Your task to perform on an android device: What is the recent news? Image 0: 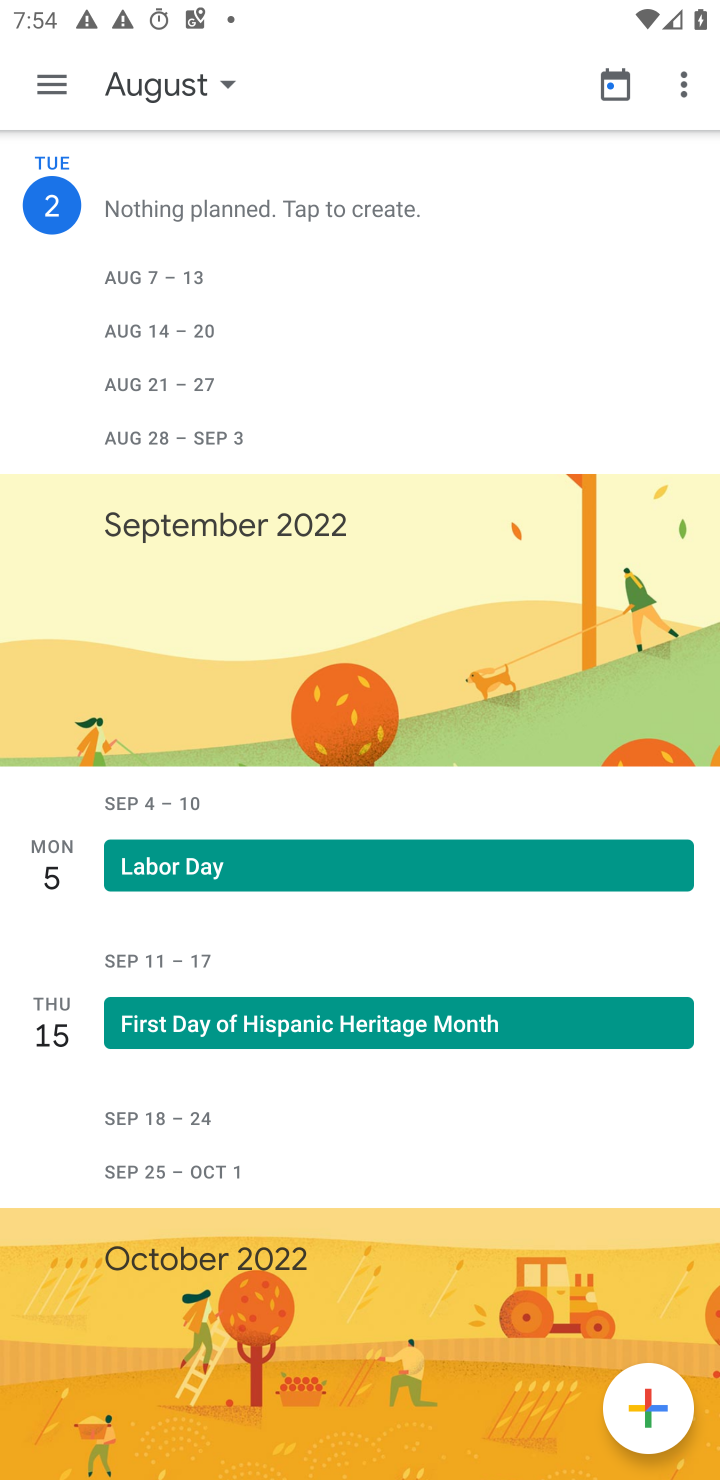
Step 0: click (661, 737)
Your task to perform on an android device: What is the recent news? Image 1: 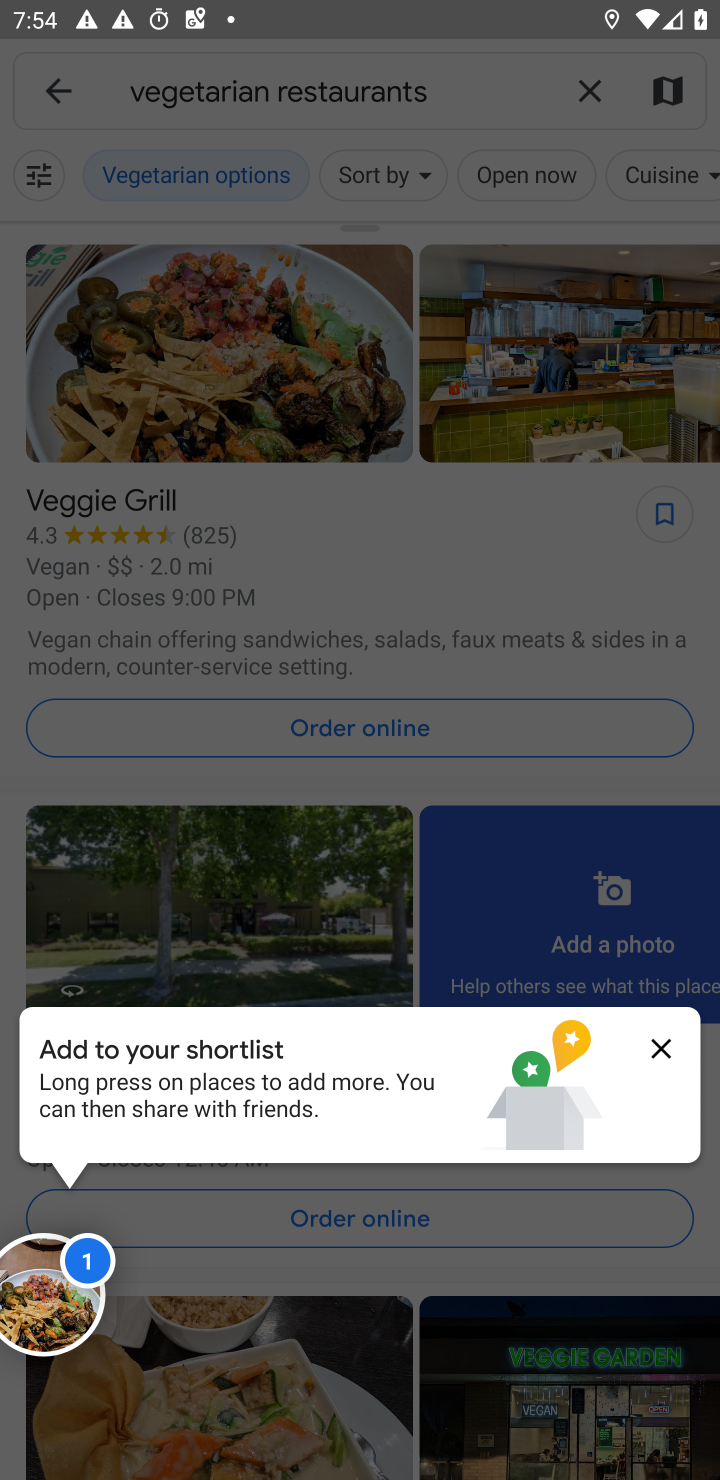
Step 1: drag from (392, 1197) to (443, 631)
Your task to perform on an android device: What is the recent news? Image 2: 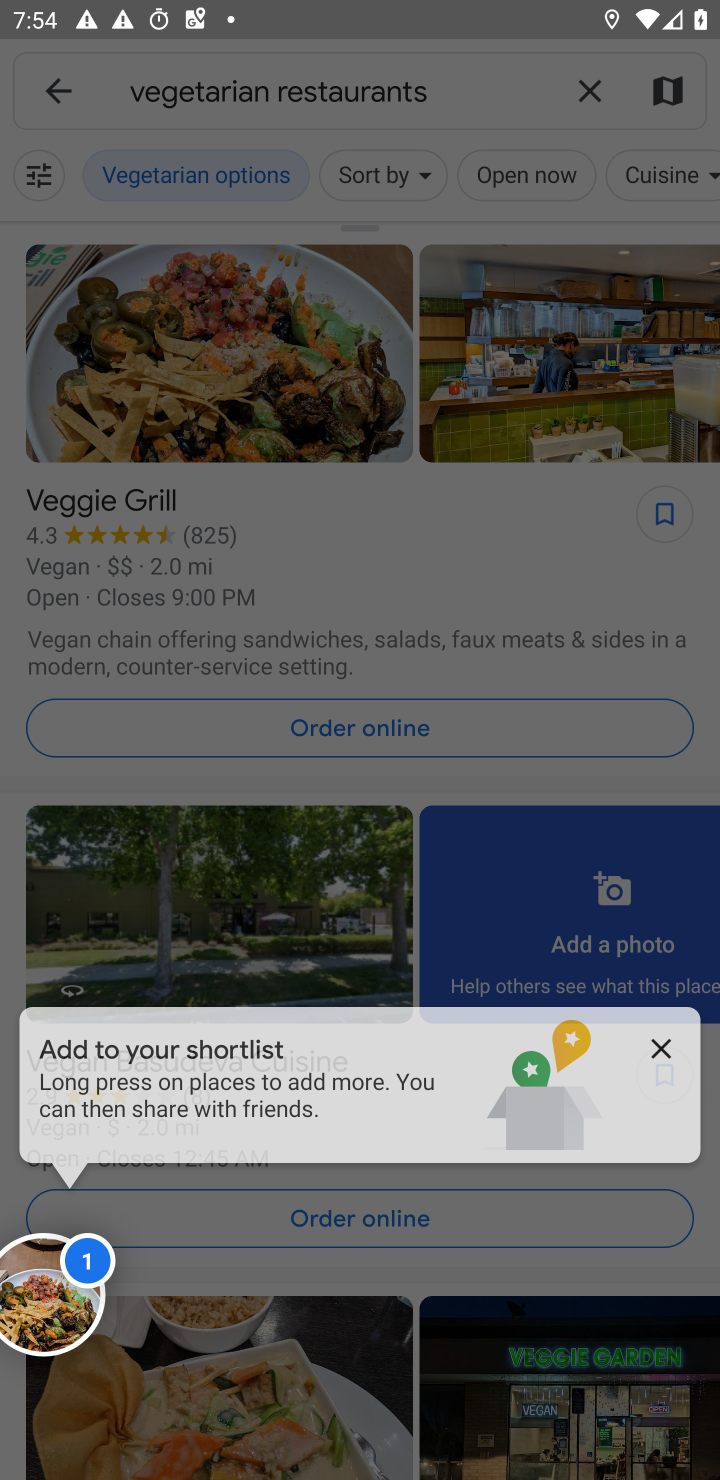
Step 2: click (545, 1336)
Your task to perform on an android device: What is the recent news? Image 3: 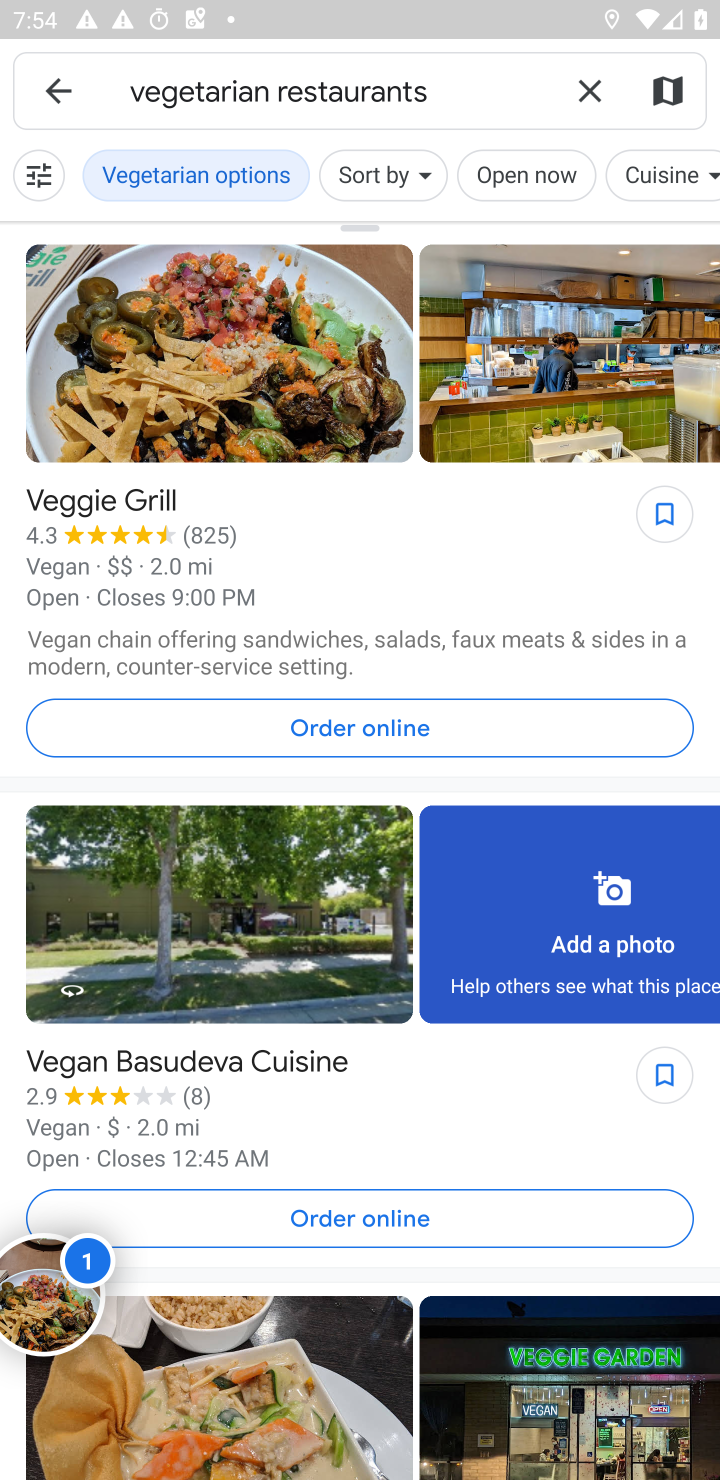
Step 3: press home button
Your task to perform on an android device: What is the recent news? Image 4: 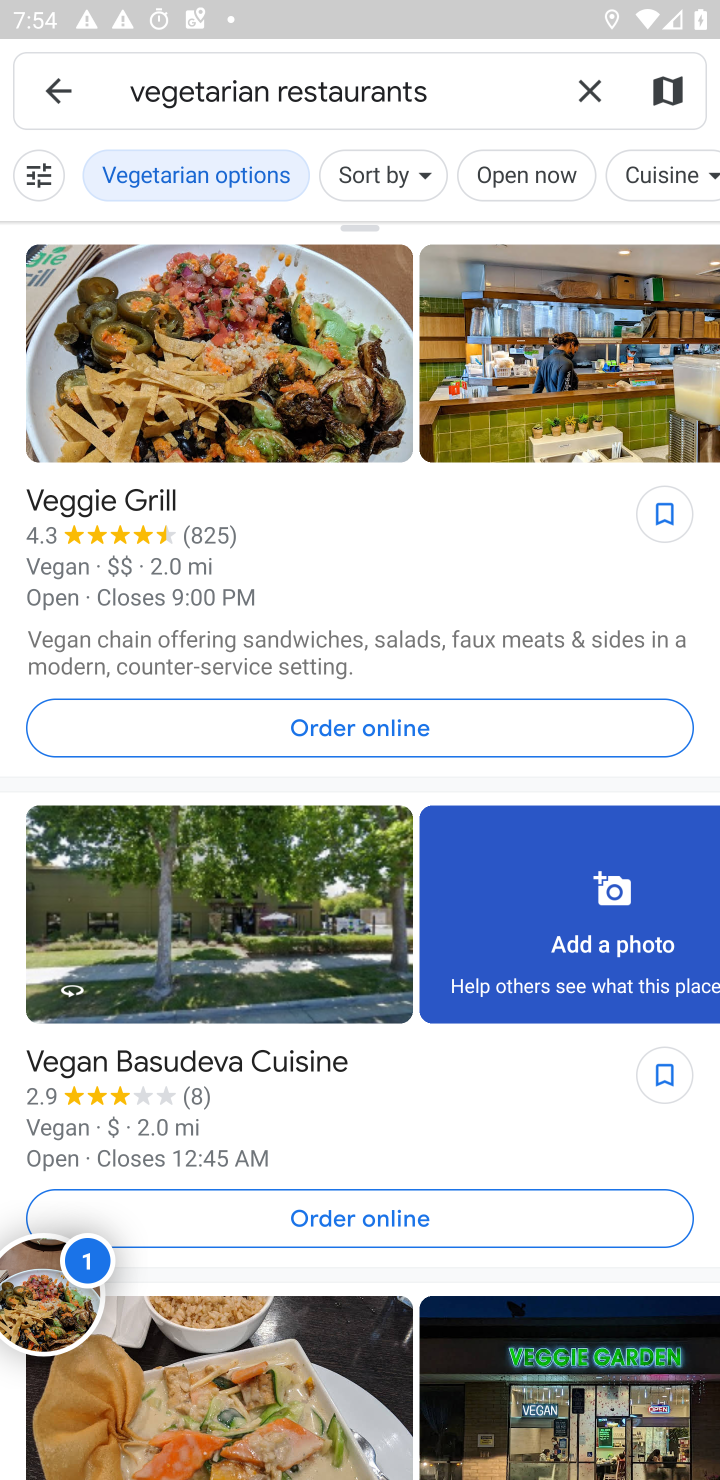
Step 4: click (573, 201)
Your task to perform on an android device: What is the recent news? Image 5: 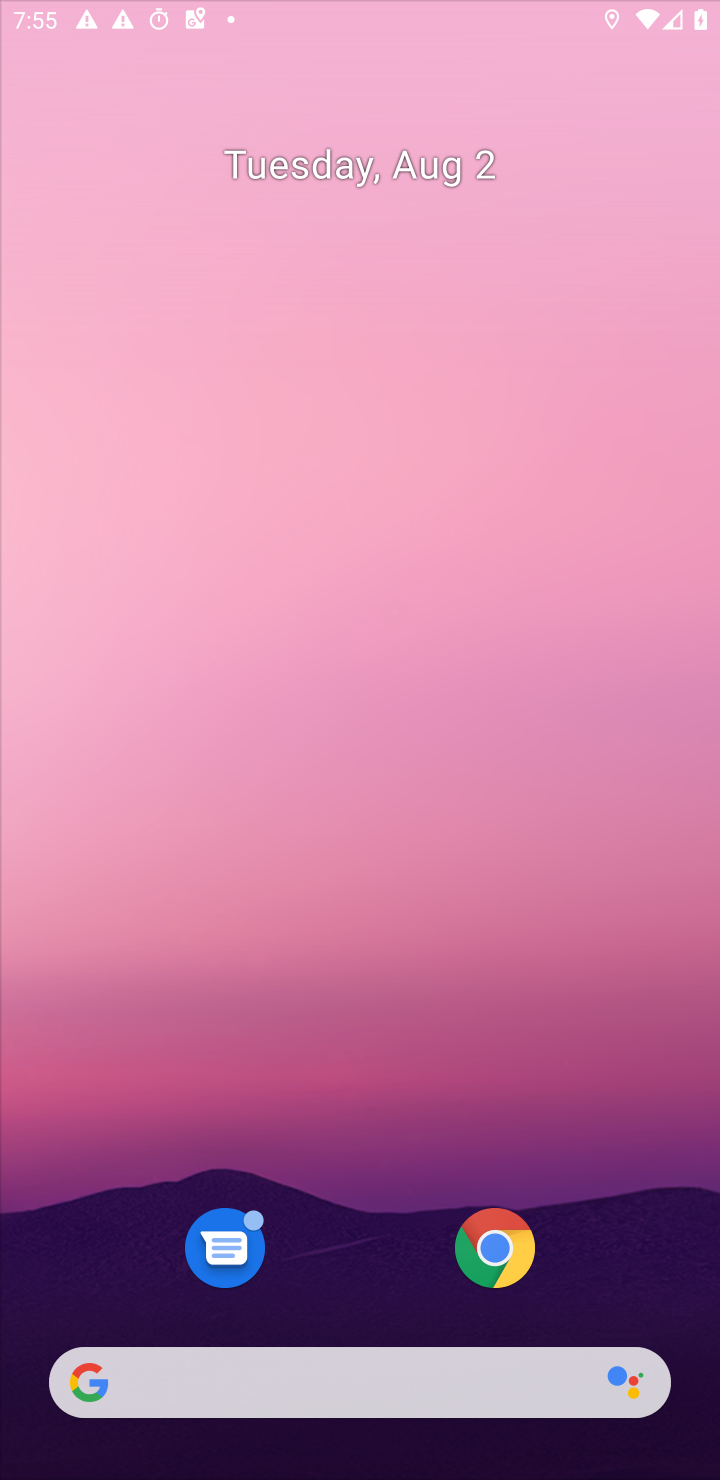
Step 5: drag from (380, 1209) to (365, 787)
Your task to perform on an android device: What is the recent news? Image 6: 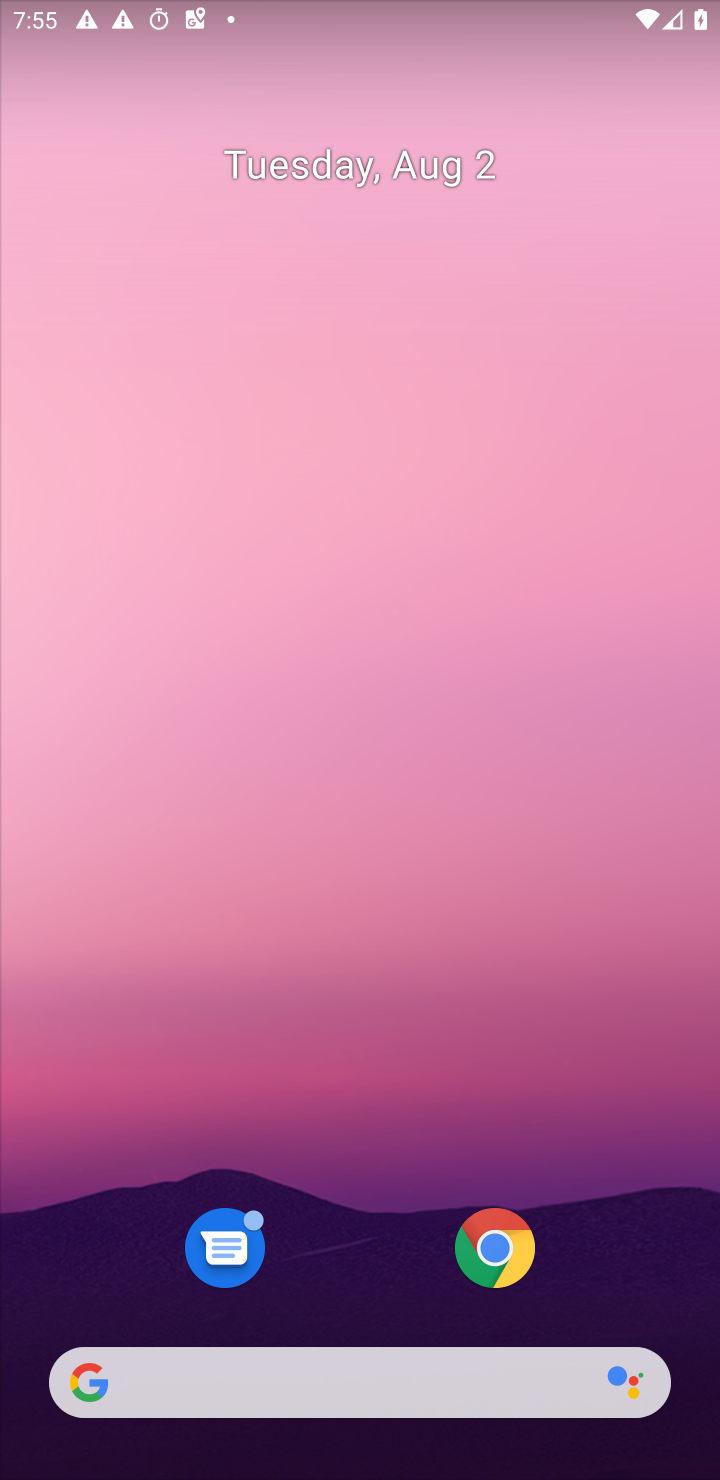
Step 6: drag from (375, 741) to (560, 199)
Your task to perform on an android device: What is the recent news? Image 7: 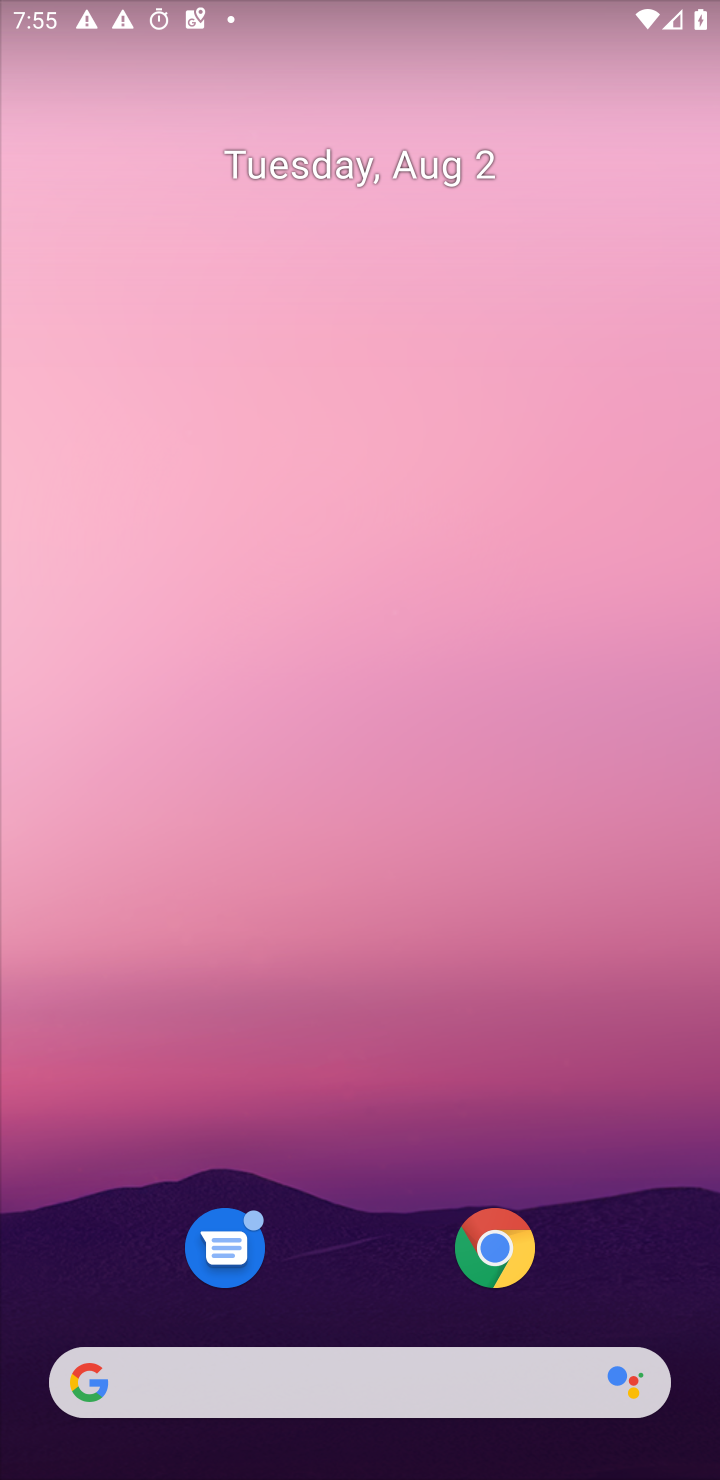
Step 7: drag from (363, 1242) to (487, 430)
Your task to perform on an android device: What is the recent news? Image 8: 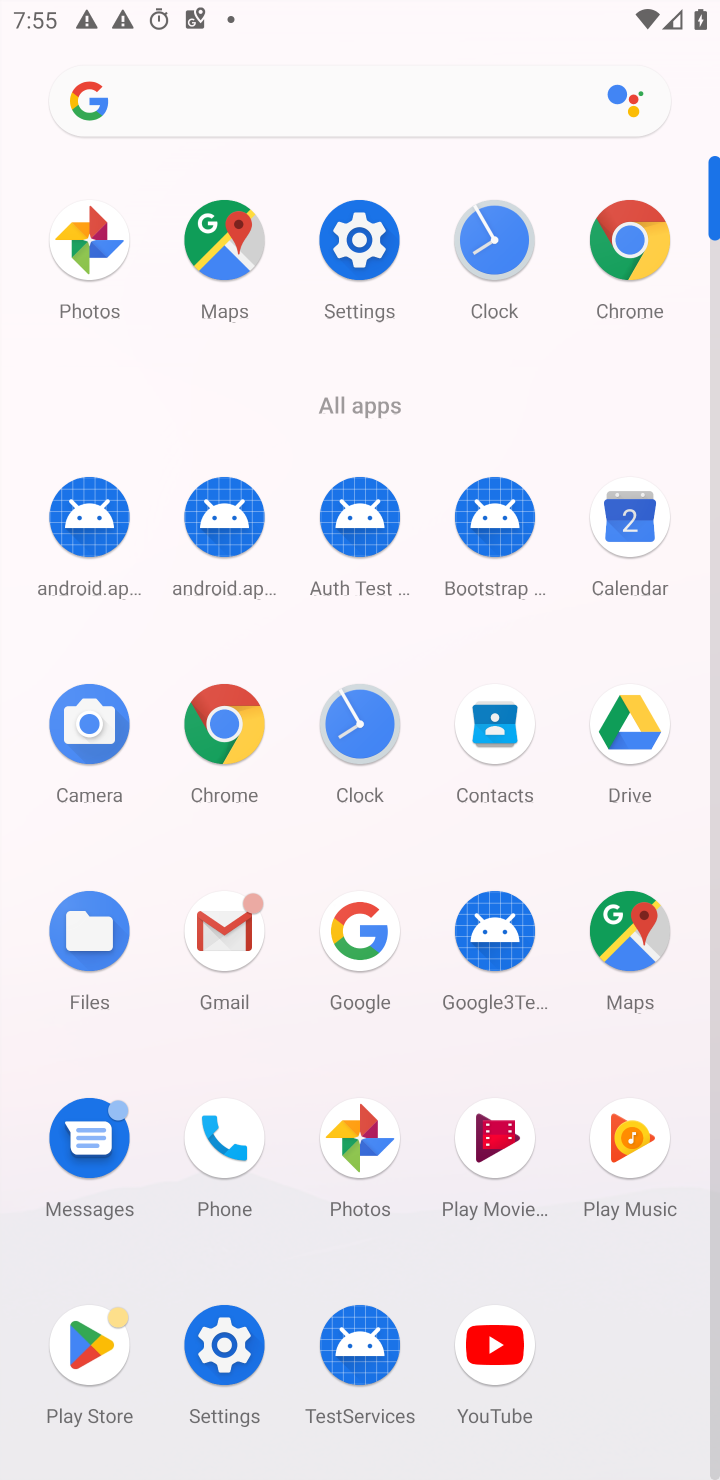
Step 8: click (300, 111)
Your task to perform on an android device: What is the recent news? Image 9: 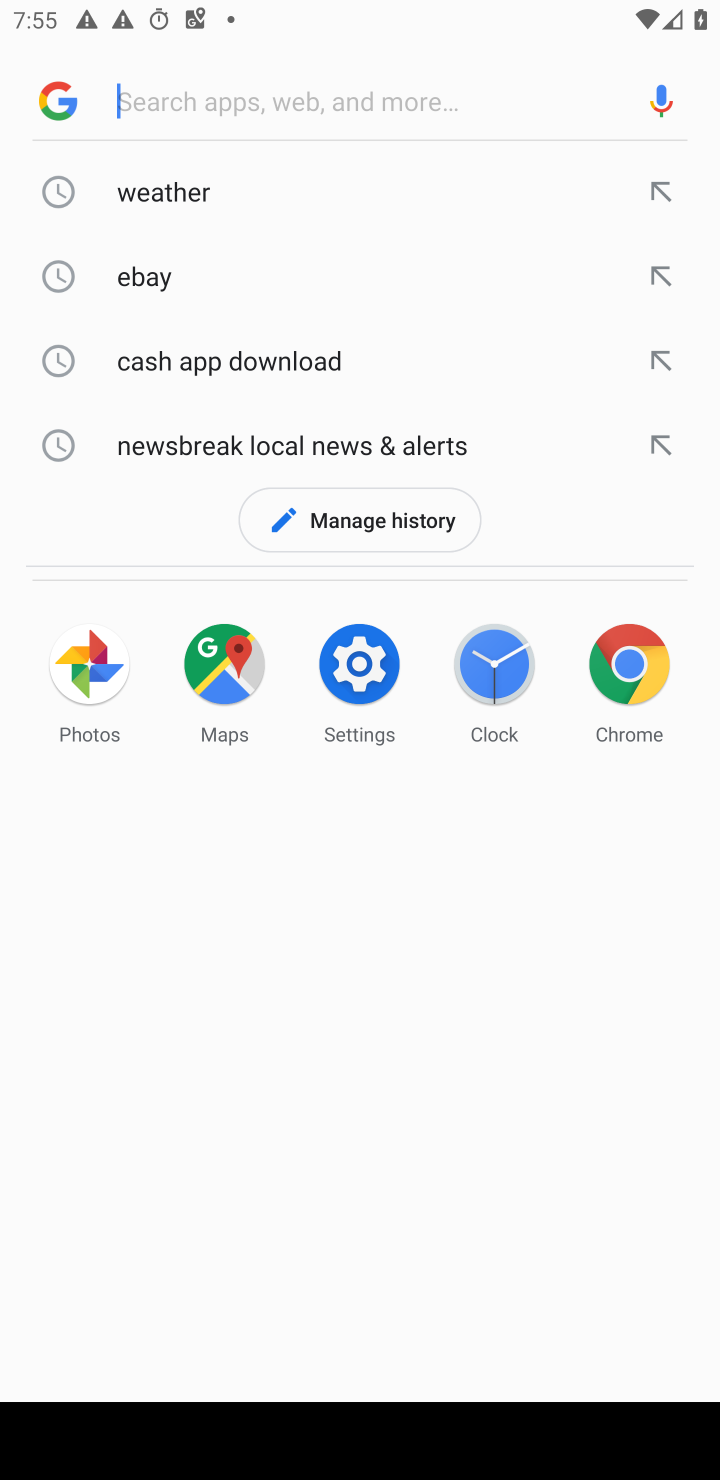
Step 9: type "recent news?"
Your task to perform on an android device: What is the recent news? Image 10: 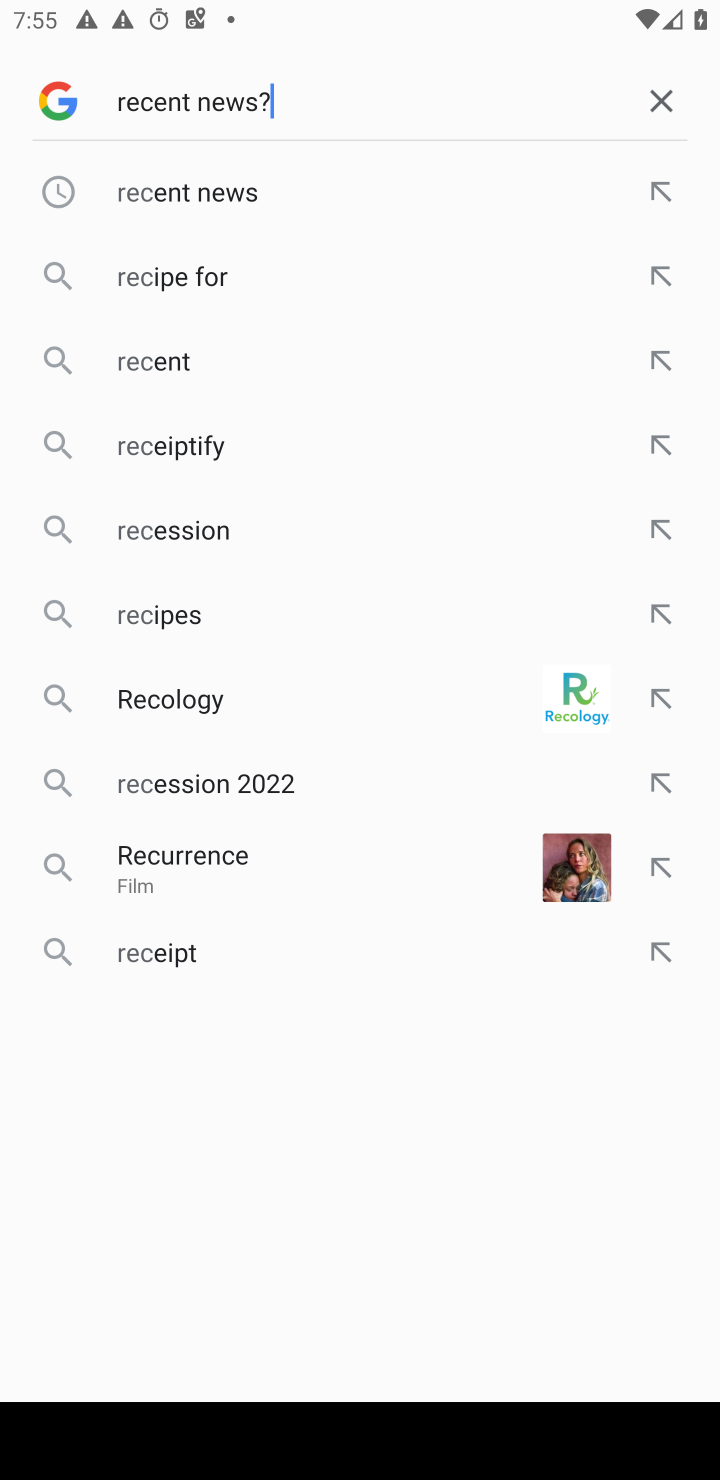
Step 10: type ""
Your task to perform on an android device: What is the recent news? Image 11: 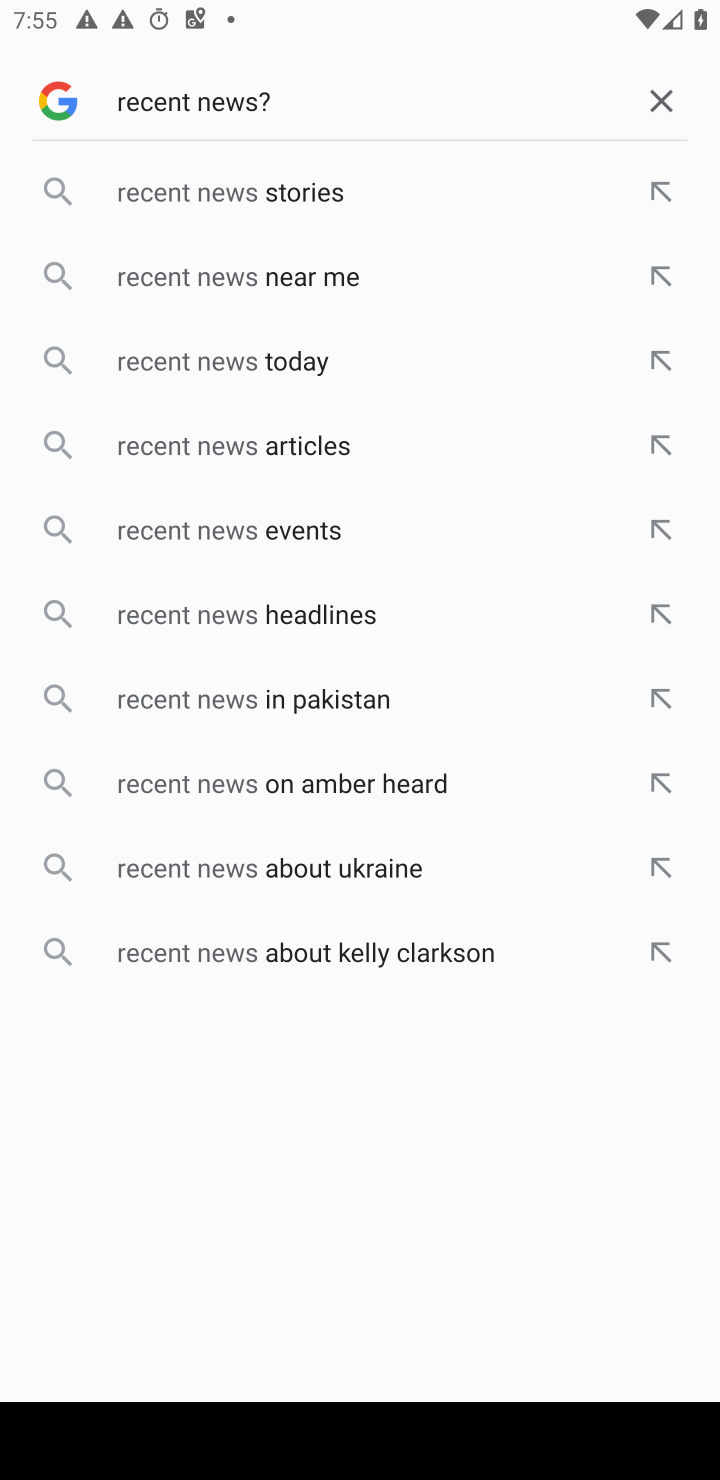
Step 11: click (119, 358)
Your task to perform on an android device: What is the recent news? Image 12: 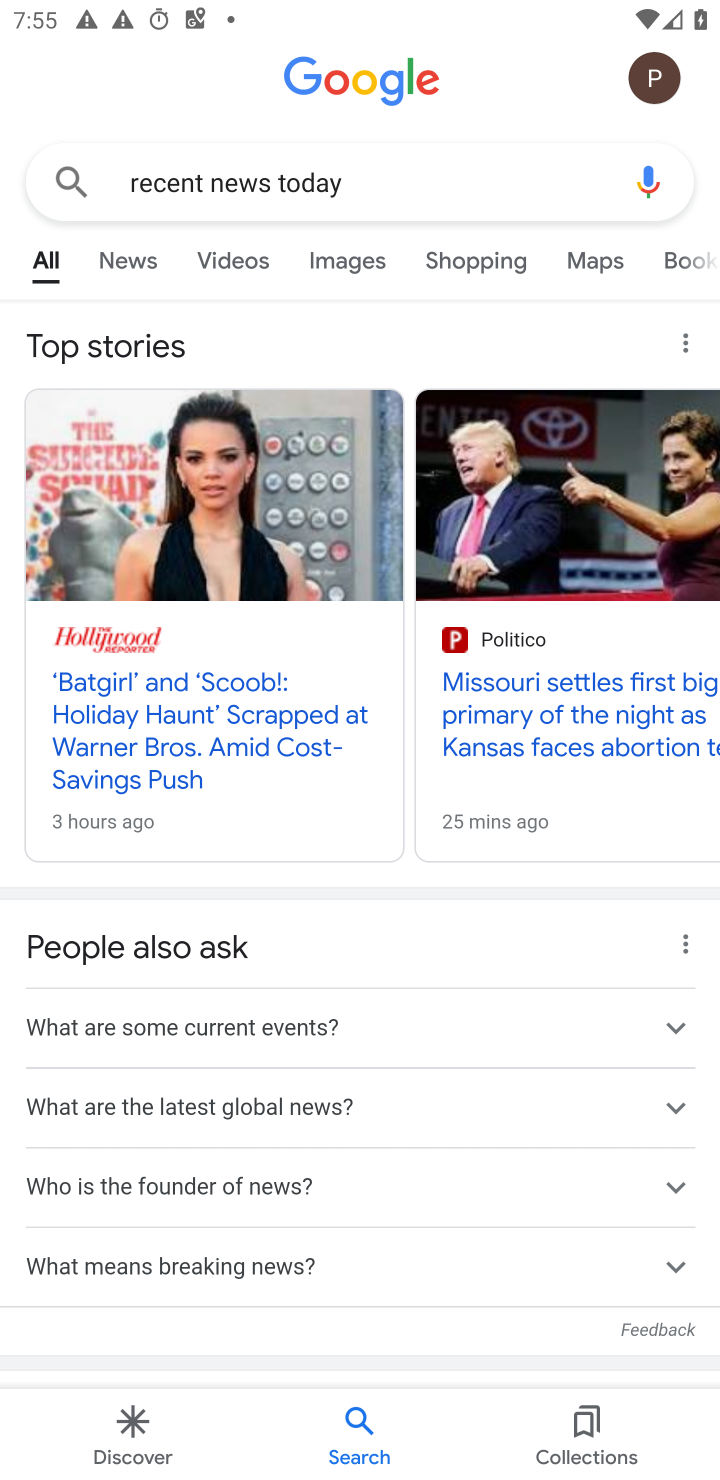
Step 12: drag from (344, 357) to (490, 1037)
Your task to perform on an android device: What is the recent news? Image 13: 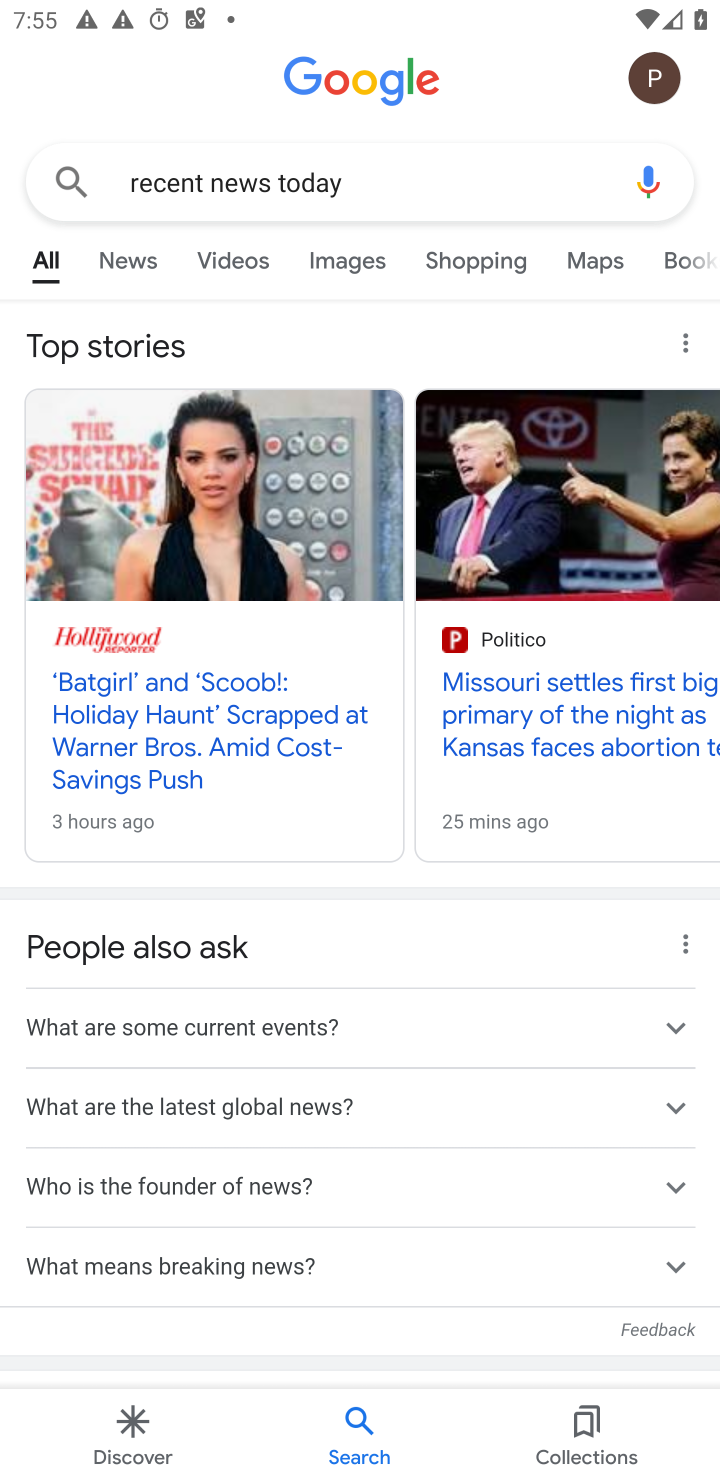
Step 13: drag from (252, 520) to (300, 975)
Your task to perform on an android device: What is the recent news? Image 14: 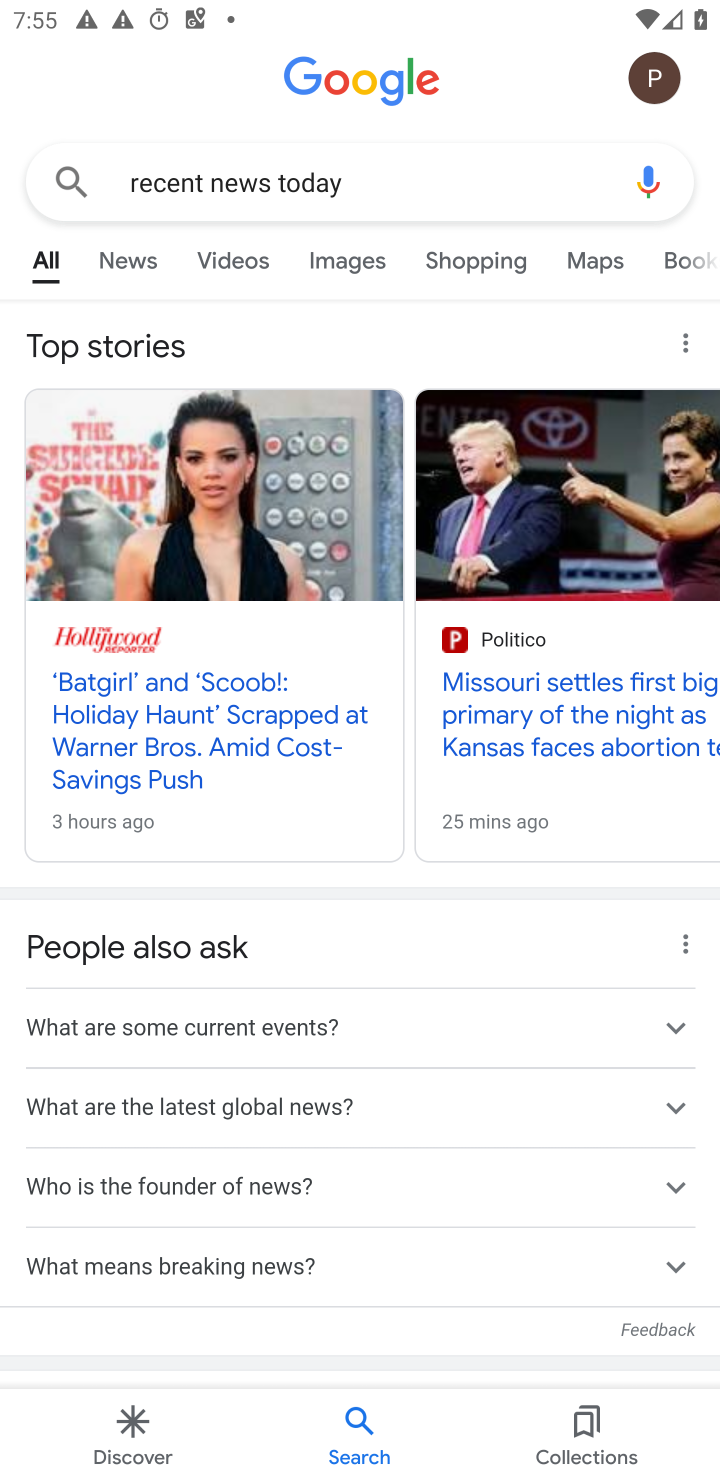
Step 14: drag from (380, 989) to (343, 475)
Your task to perform on an android device: What is the recent news? Image 15: 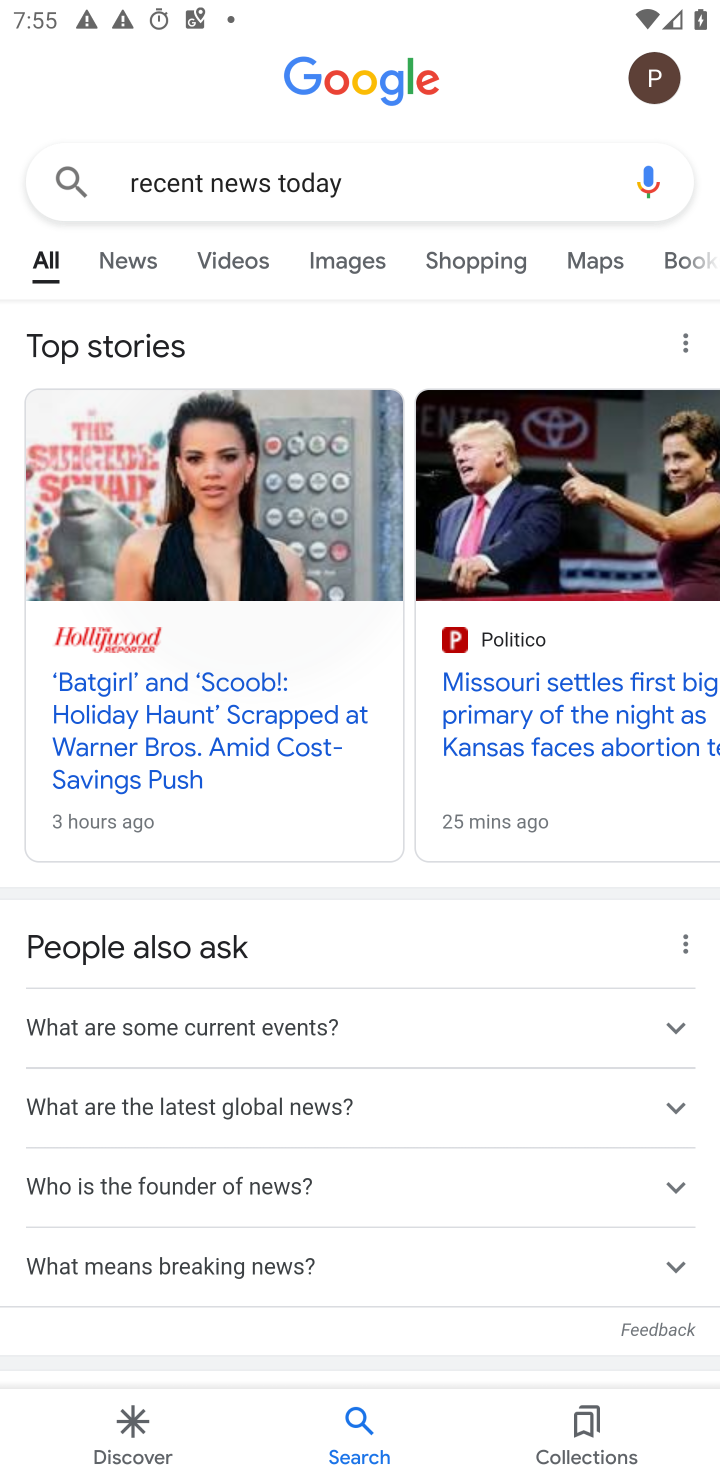
Step 15: drag from (424, 1016) to (439, 492)
Your task to perform on an android device: What is the recent news? Image 16: 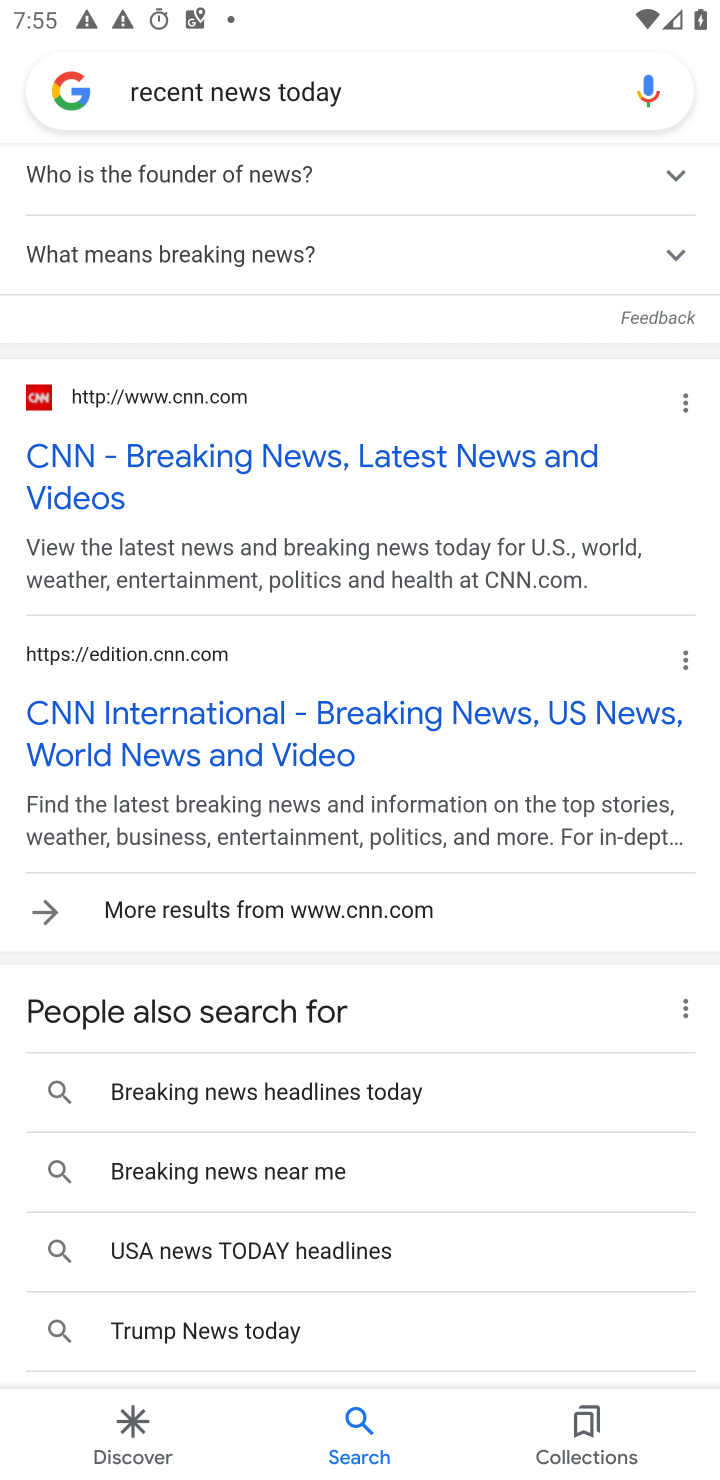
Step 16: drag from (290, 1054) to (298, 413)
Your task to perform on an android device: What is the recent news? Image 17: 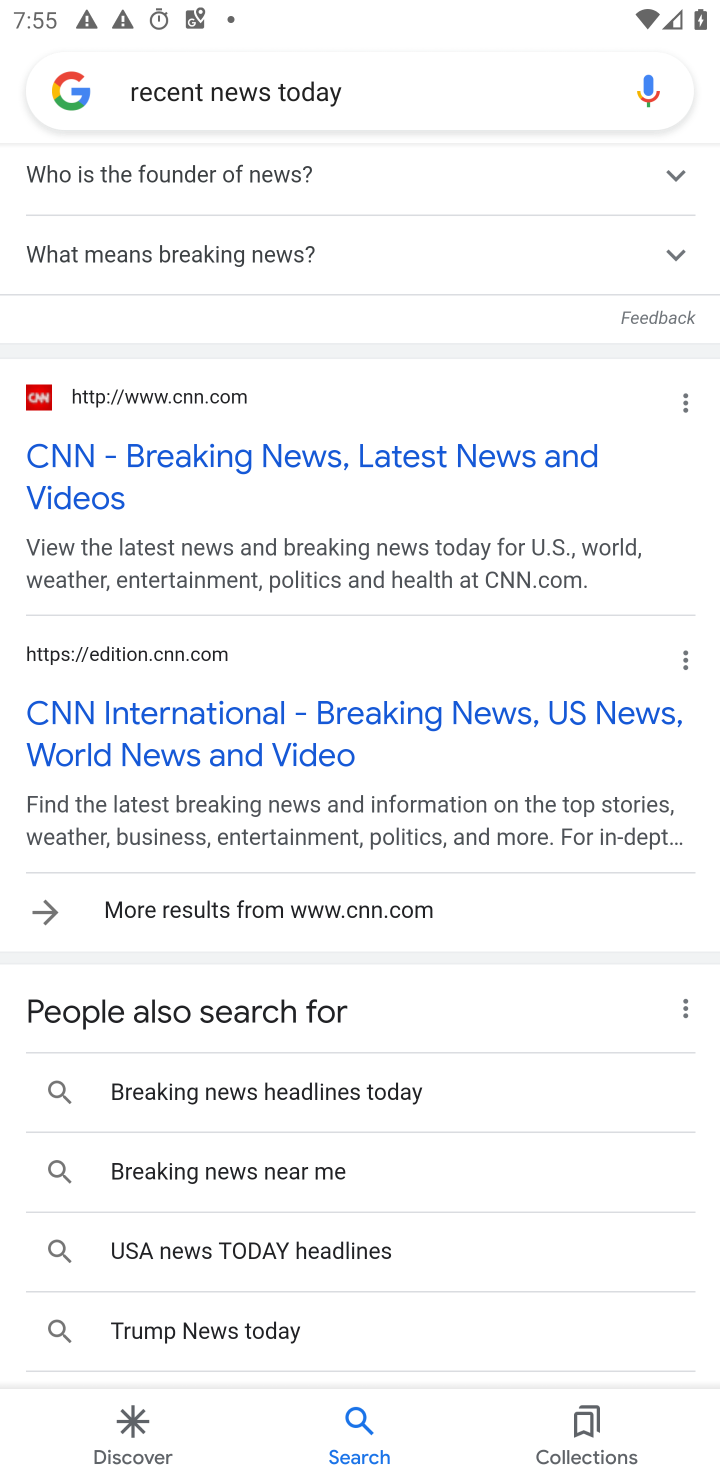
Step 17: drag from (307, 345) to (461, 1267)
Your task to perform on an android device: What is the recent news? Image 18: 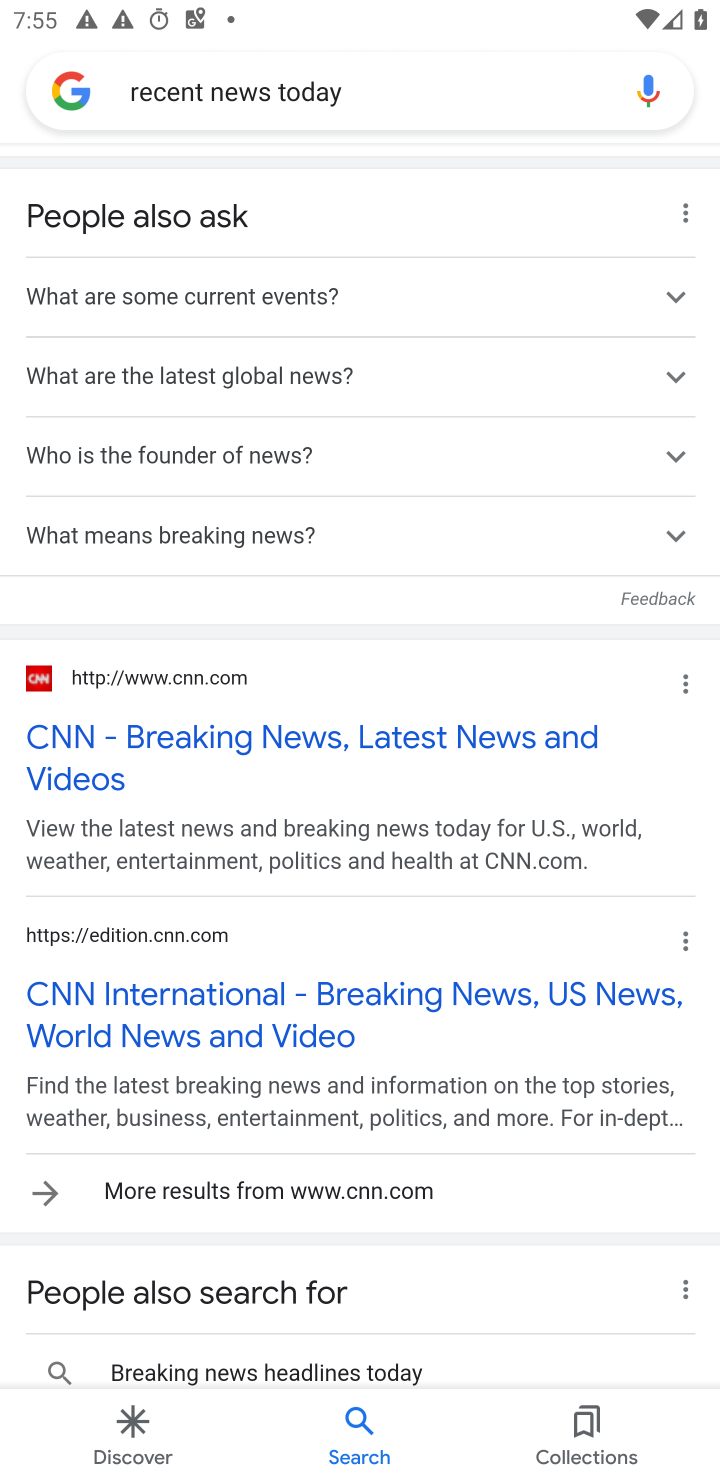
Step 18: drag from (327, 738) to (371, 419)
Your task to perform on an android device: What is the recent news? Image 19: 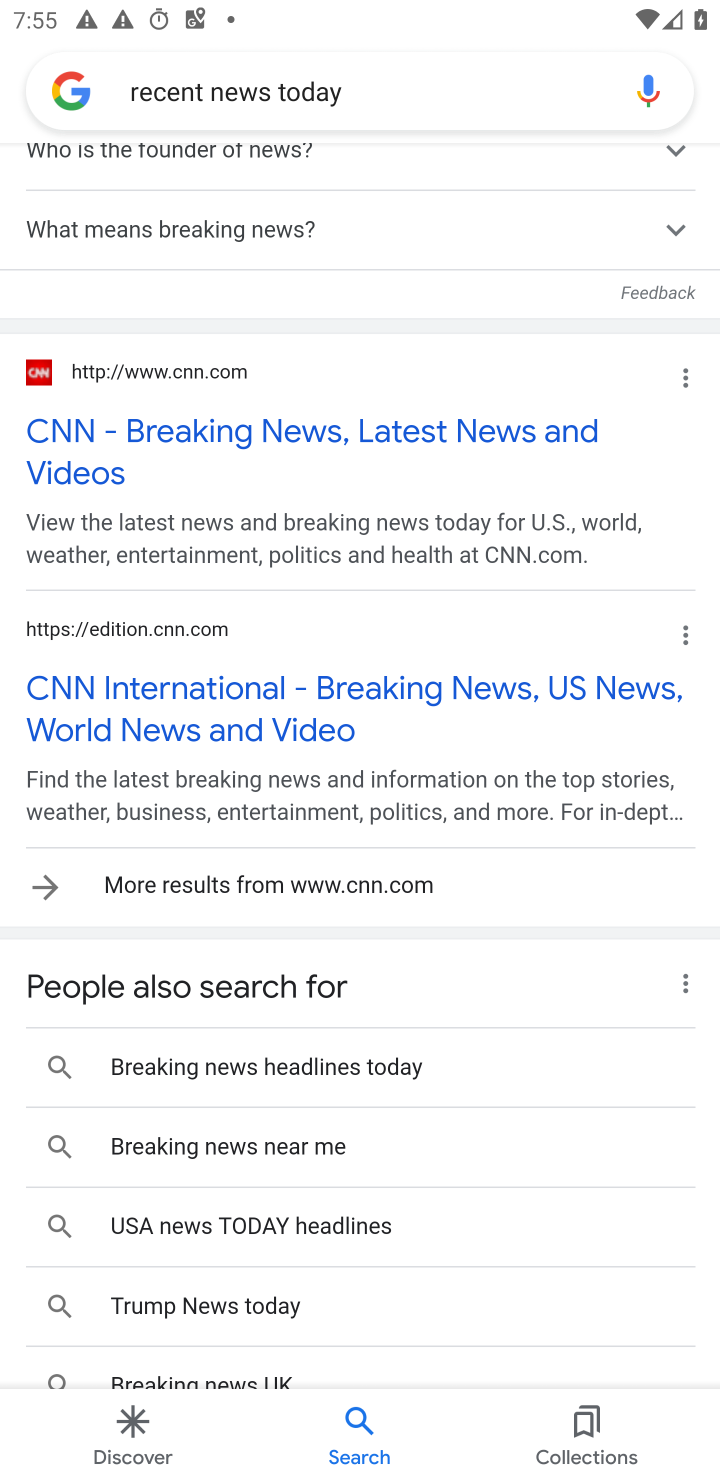
Step 19: drag from (338, 477) to (528, 1149)
Your task to perform on an android device: What is the recent news? Image 20: 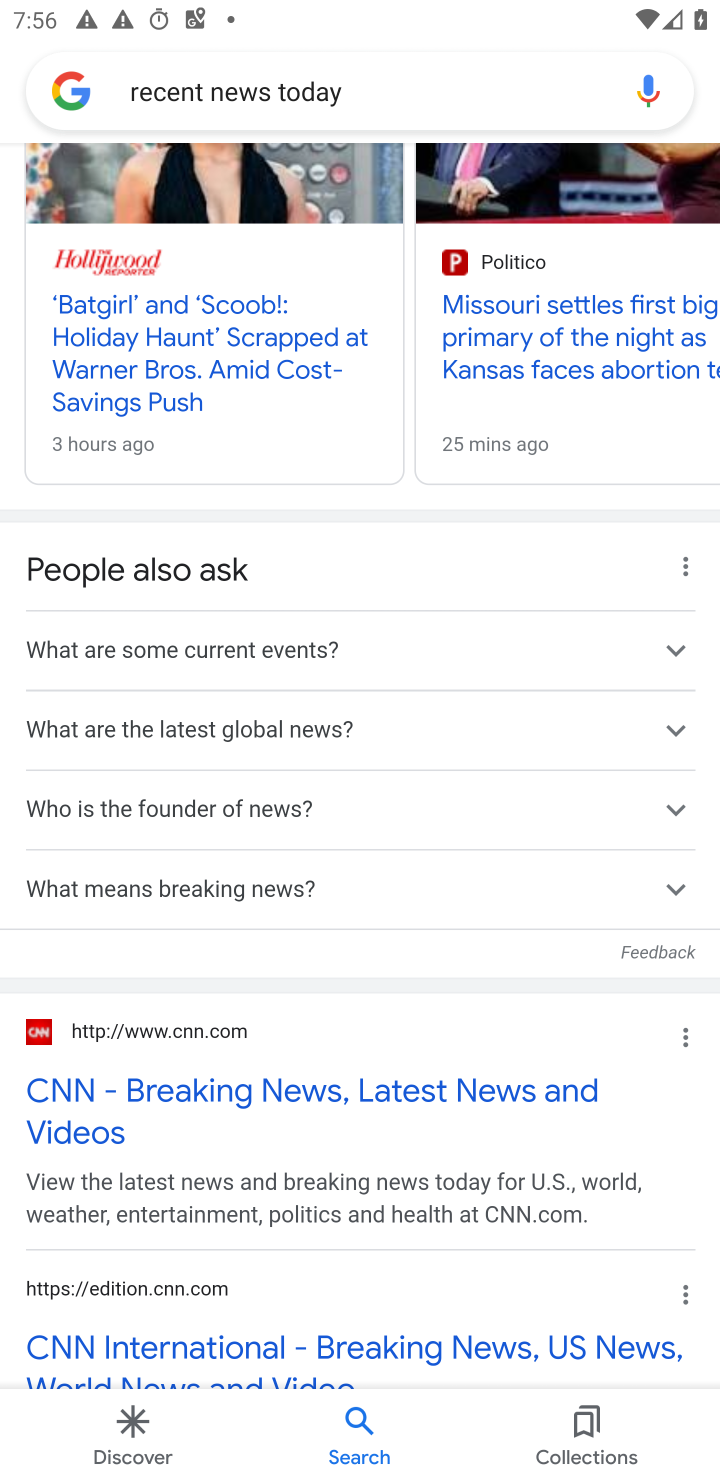
Step 20: drag from (389, 601) to (310, 1368)
Your task to perform on an android device: What is the recent news? Image 21: 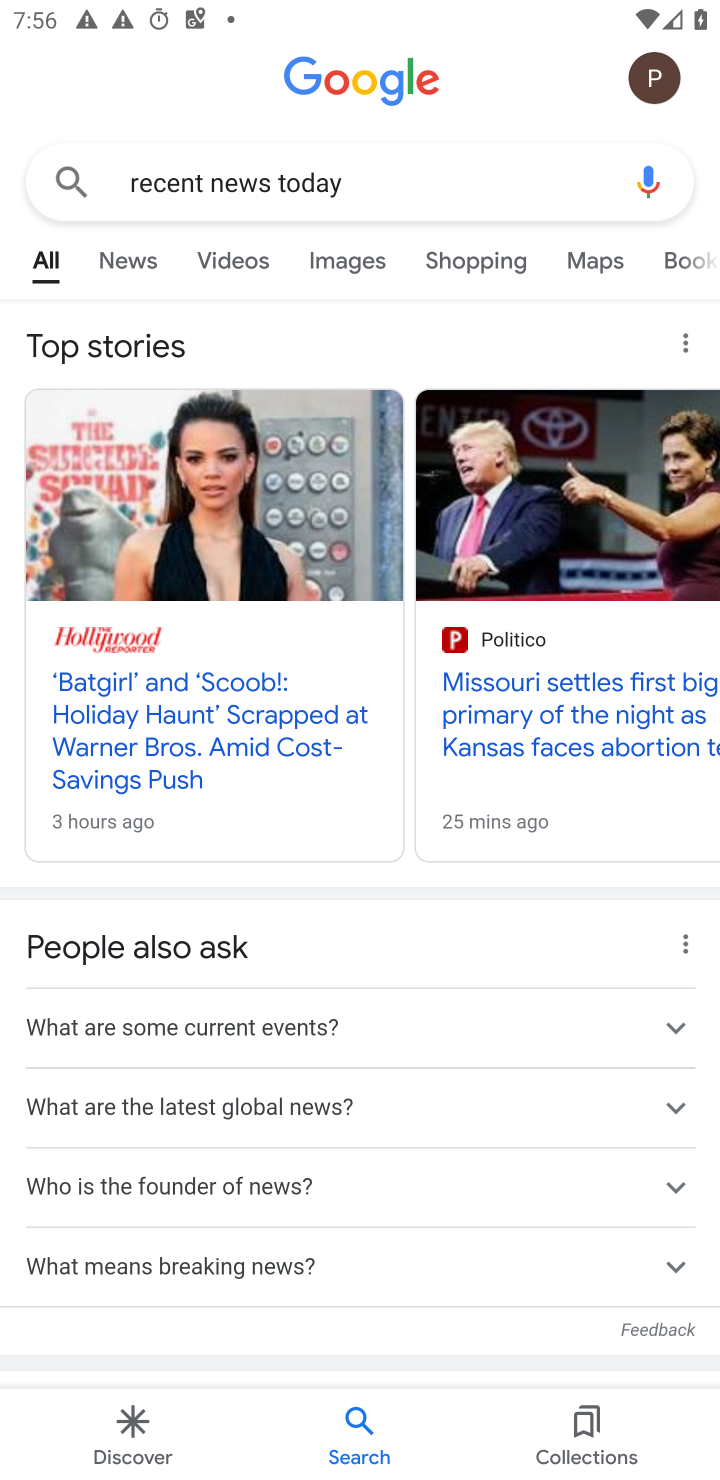
Step 21: drag from (375, 350) to (313, 863)
Your task to perform on an android device: What is the recent news? Image 22: 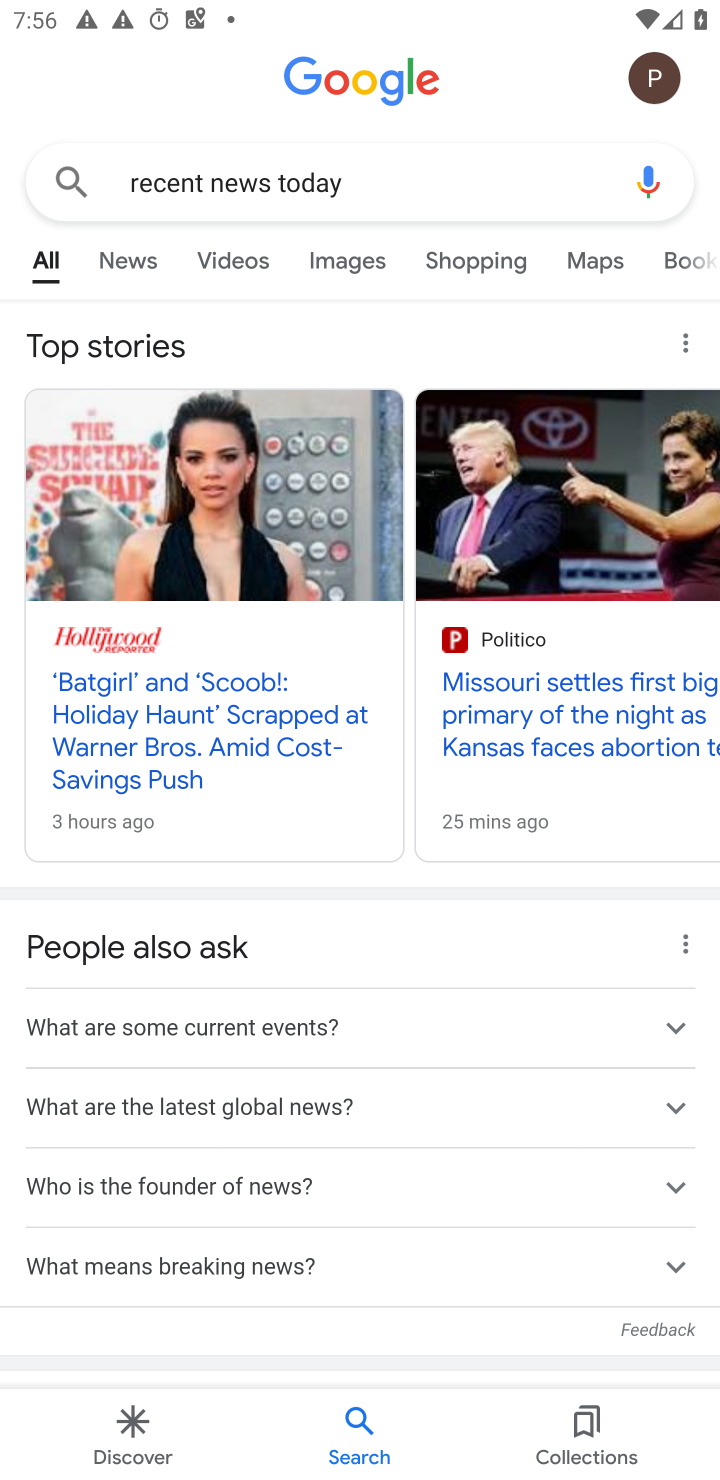
Step 22: drag from (318, 914) to (429, 1468)
Your task to perform on an android device: What is the recent news? Image 23: 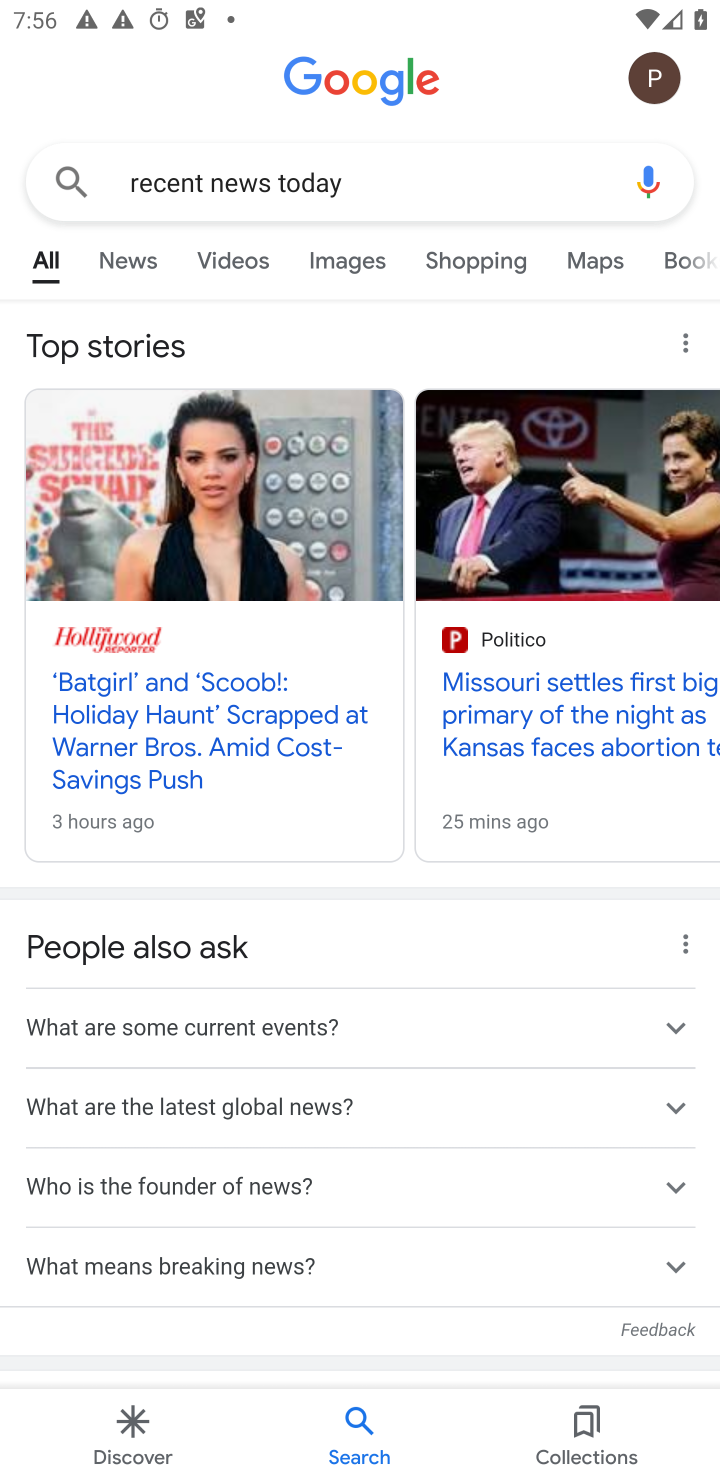
Step 23: drag from (442, 999) to (527, 653)
Your task to perform on an android device: What is the recent news? Image 24: 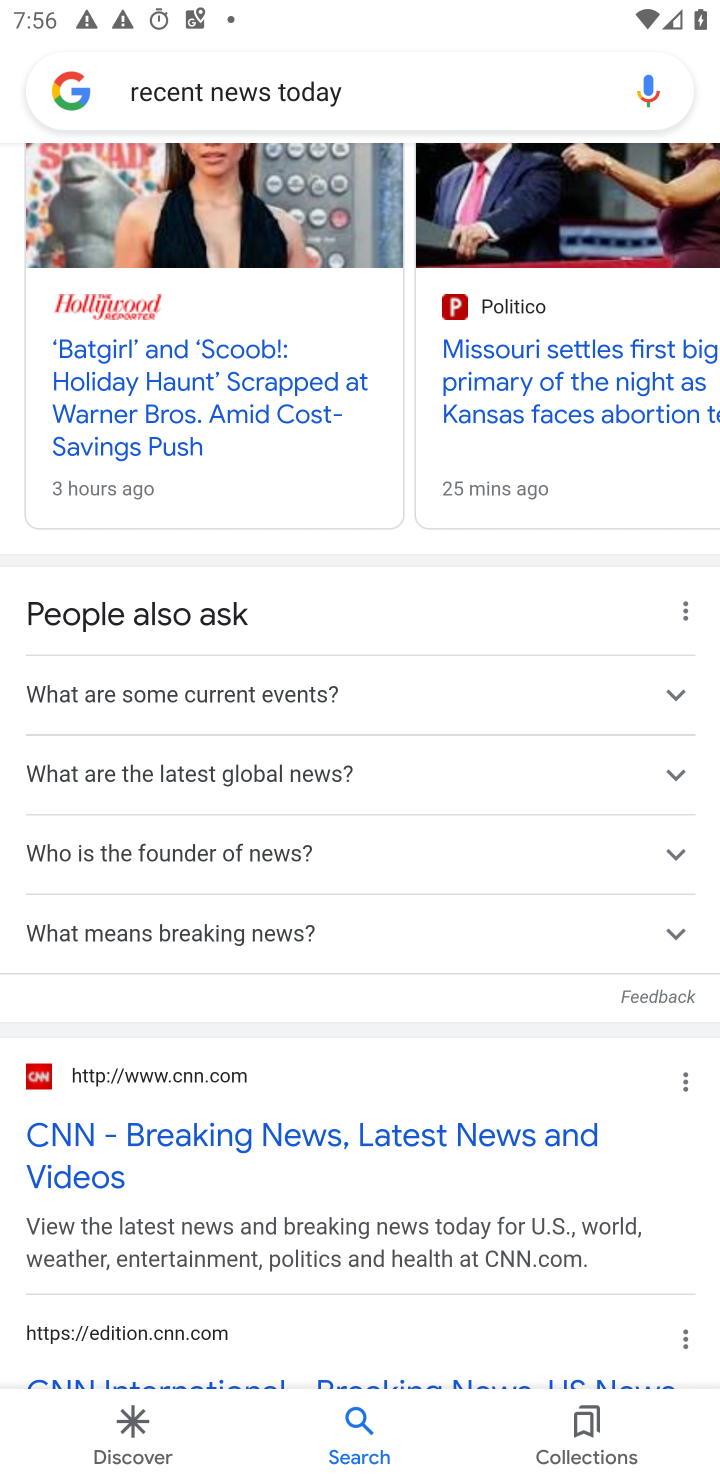
Step 24: drag from (394, 690) to (443, 1464)
Your task to perform on an android device: What is the recent news? Image 25: 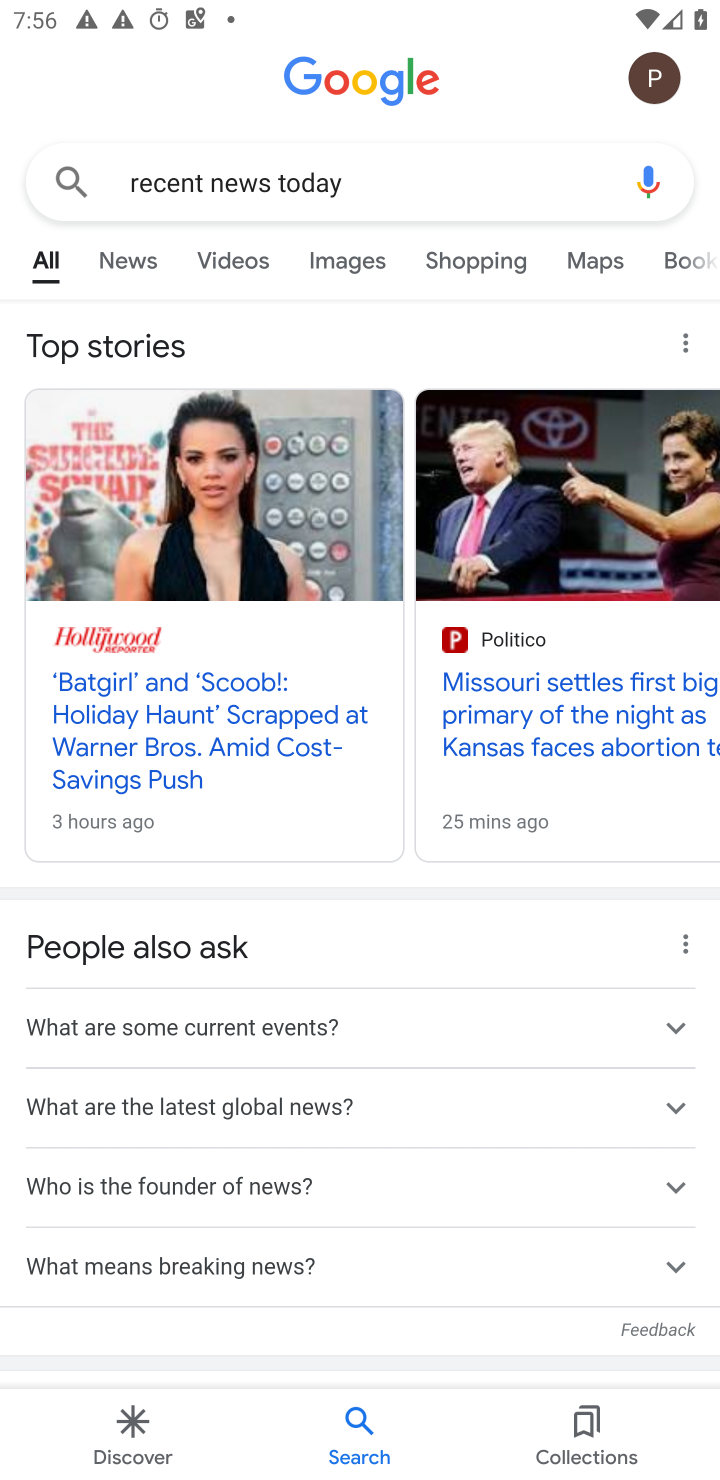
Step 25: drag from (381, 1004) to (502, 1478)
Your task to perform on an android device: What is the recent news? Image 26: 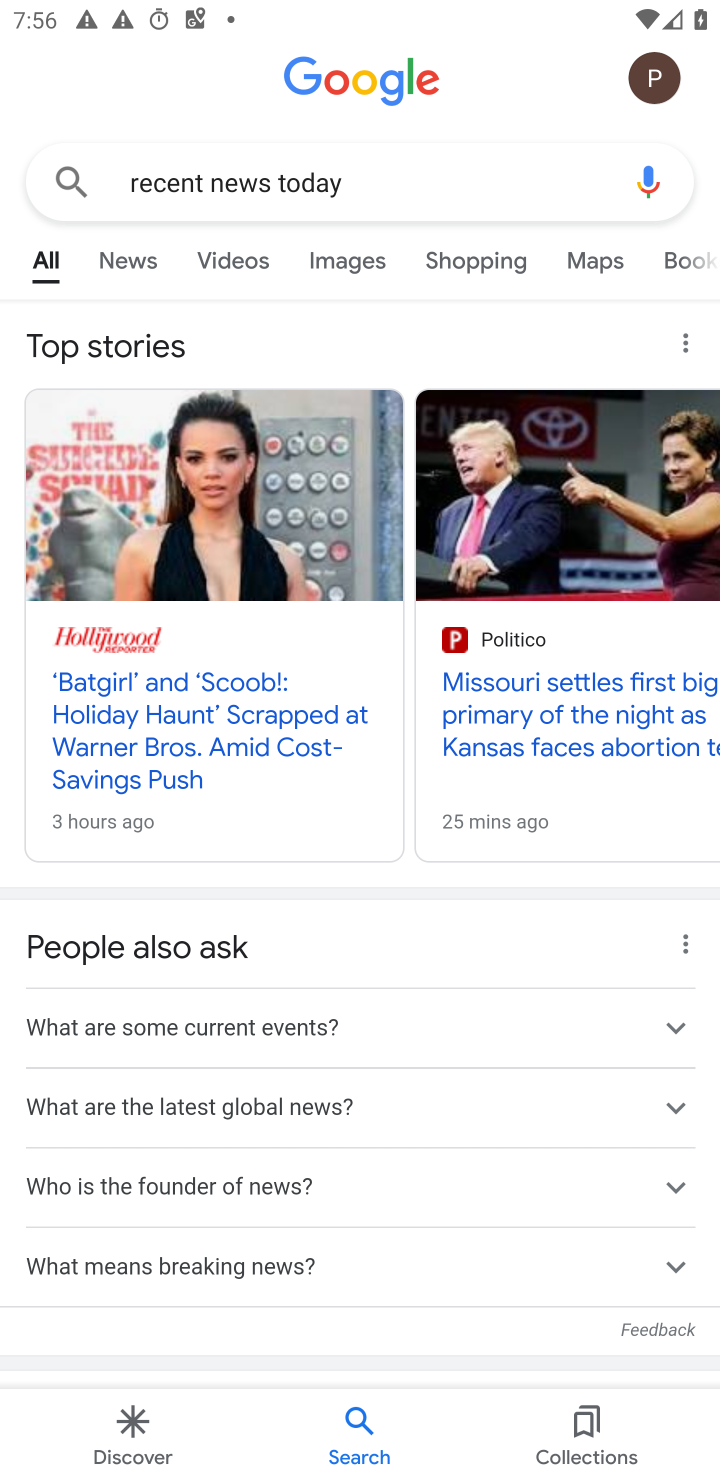
Step 26: drag from (481, 810) to (676, 200)
Your task to perform on an android device: What is the recent news? Image 27: 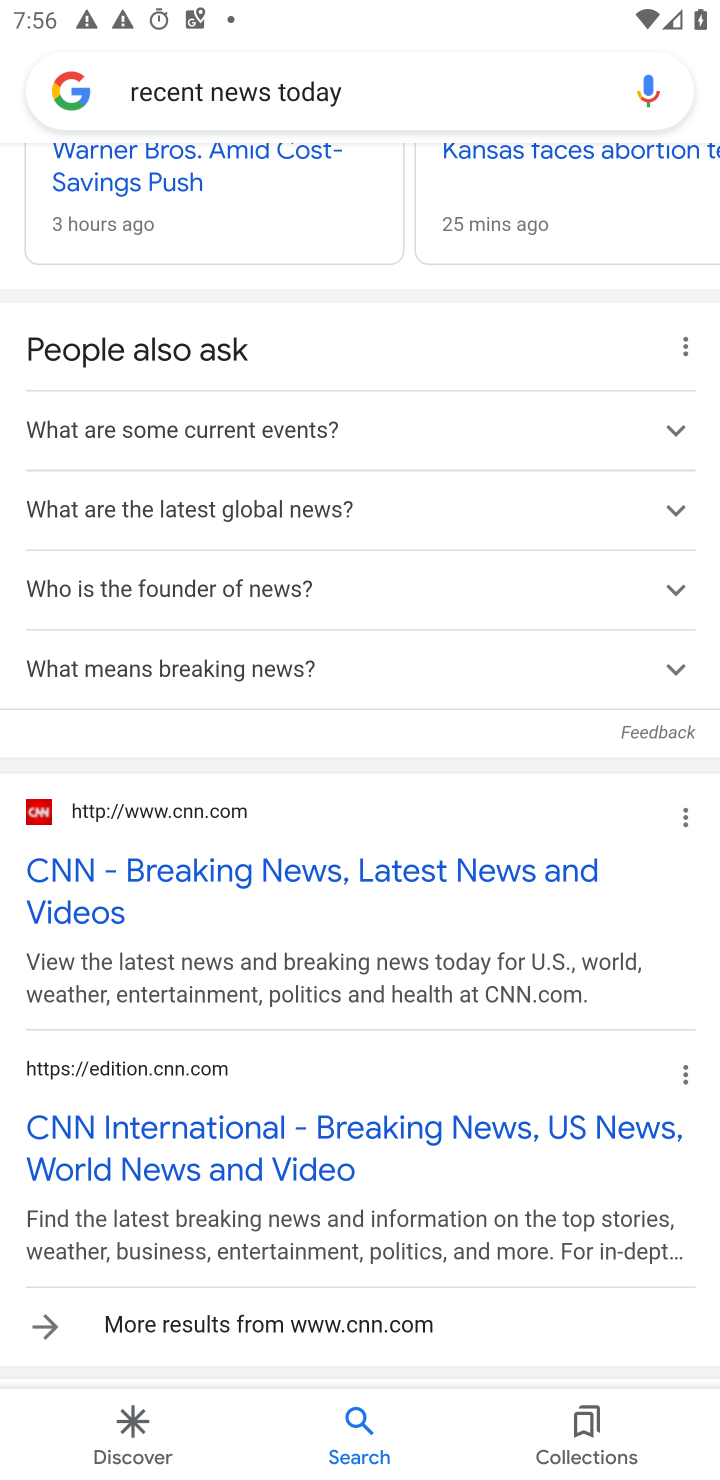
Step 27: drag from (319, 1207) to (445, 538)
Your task to perform on an android device: What is the recent news? Image 28: 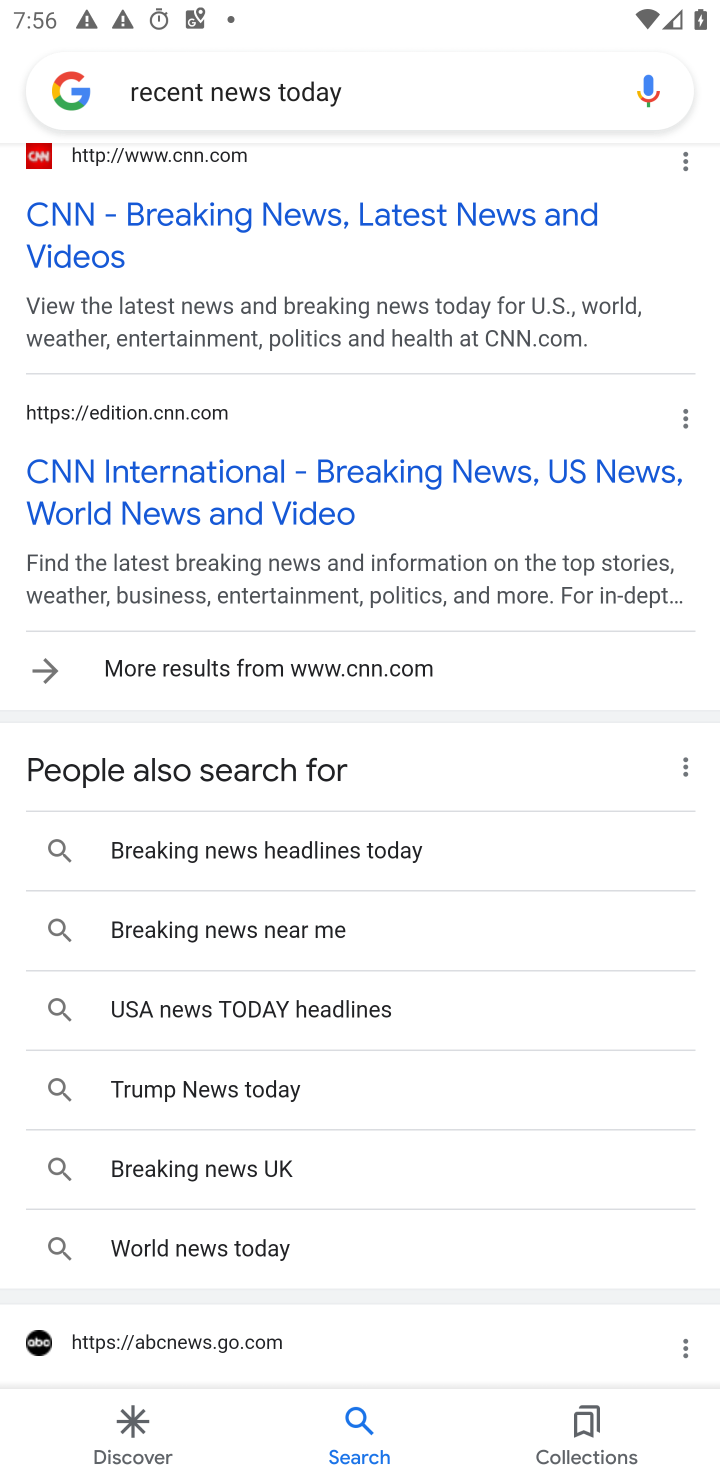
Step 28: click (235, 230)
Your task to perform on an android device: What is the recent news? Image 29: 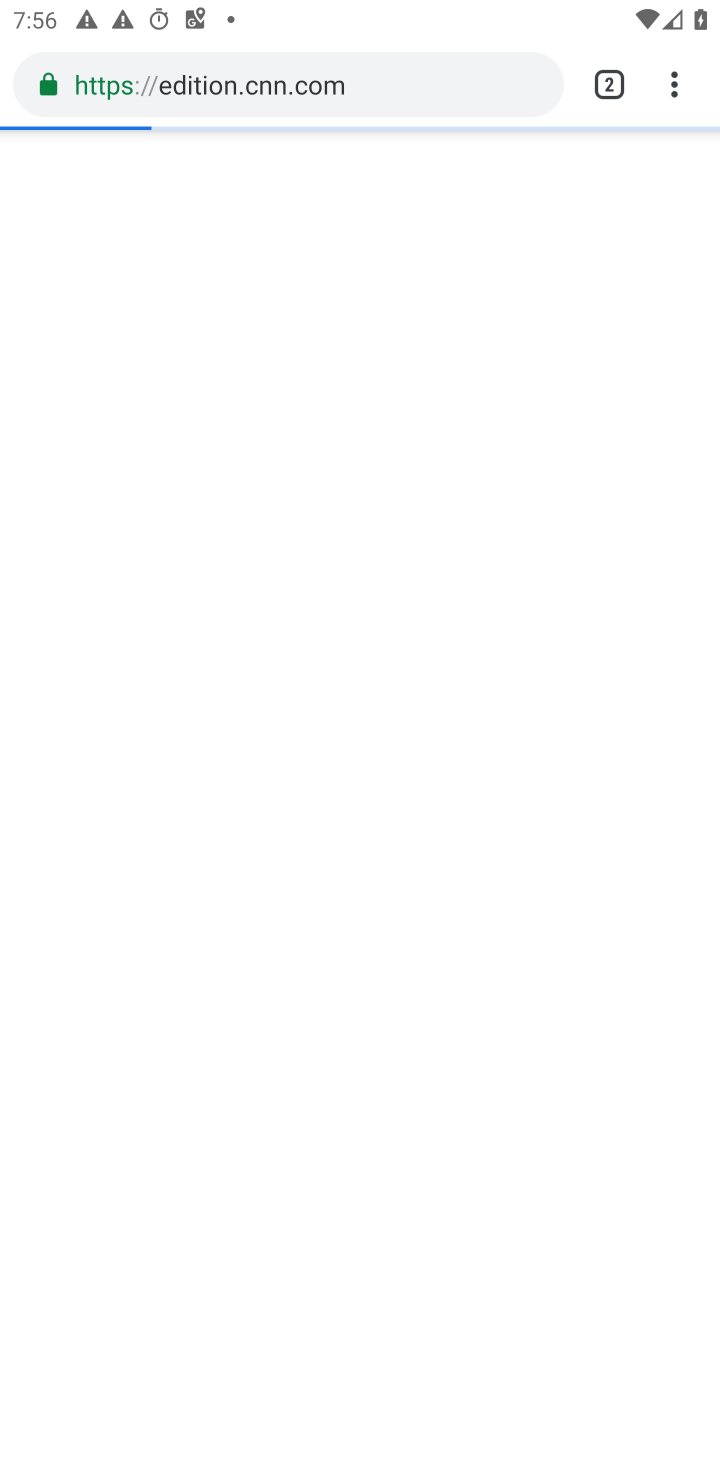
Step 29: task complete